Your task to perform on an android device: open a bookmark in the chrome app Image 0: 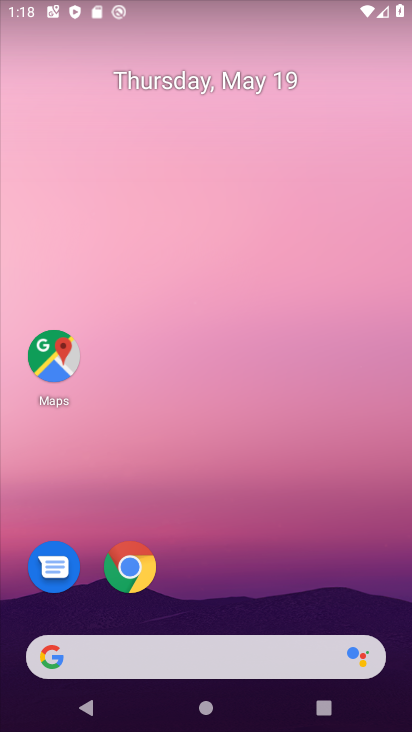
Step 0: press home button
Your task to perform on an android device: open a bookmark in the chrome app Image 1: 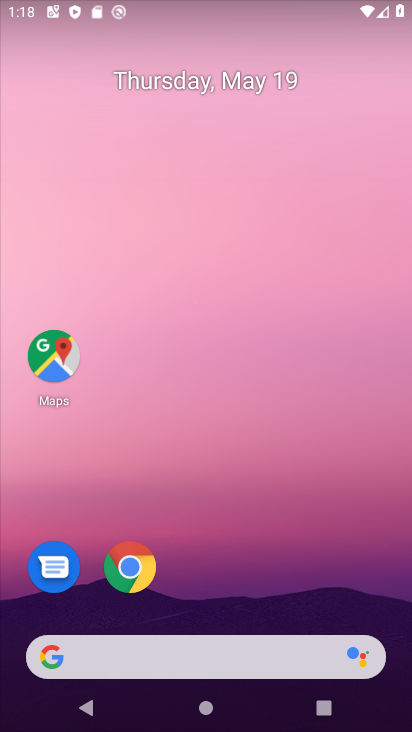
Step 1: click (134, 570)
Your task to perform on an android device: open a bookmark in the chrome app Image 2: 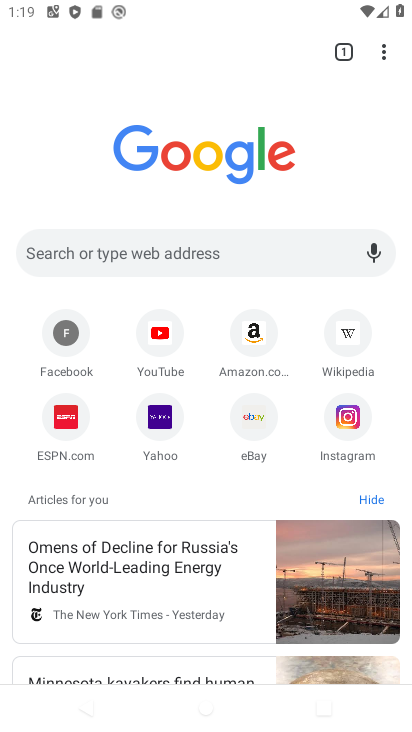
Step 2: click (386, 48)
Your task to perform on an android device: open a bookmark in the chrome app Image 3: 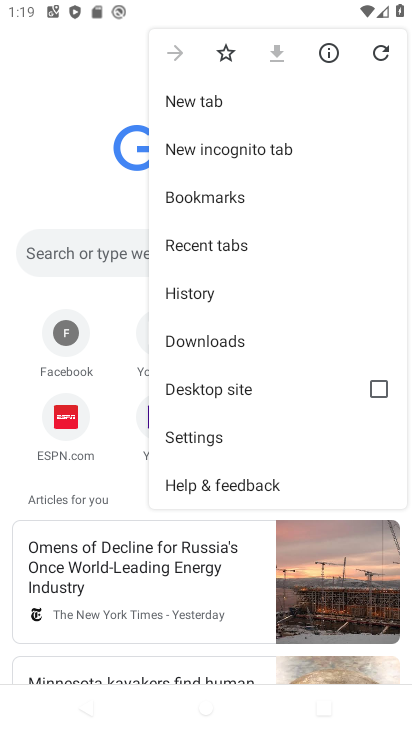
Step 3: click (215, 199)
Your task to perform on an android device: open a bookmark in the chrome app Image 4: 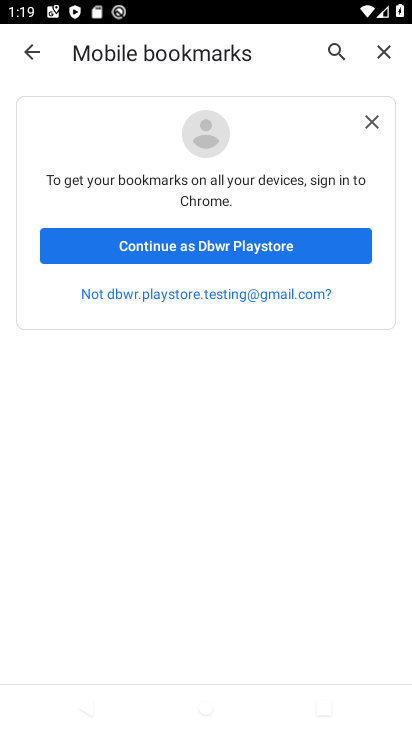
Step 4: click (370, 120)
Your task to perform on an android device: open a bookmark in the chrome app Image 5: 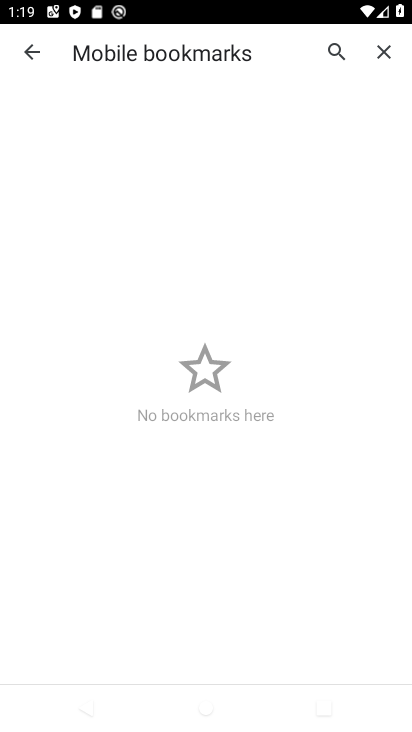
Step 5: task complete